Your task to perform on an android device: see tabs open on other devices in the chrome app Image 0: 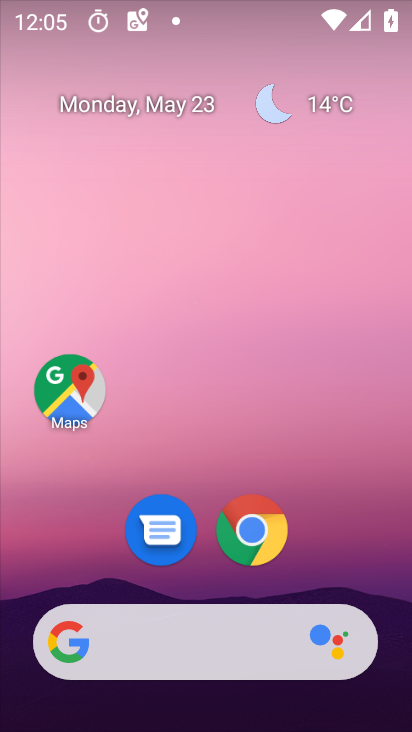
Step 0: click (260, 533)
Your task to perform on an android device: see tabs open on other devices in the chrome app Image 1: 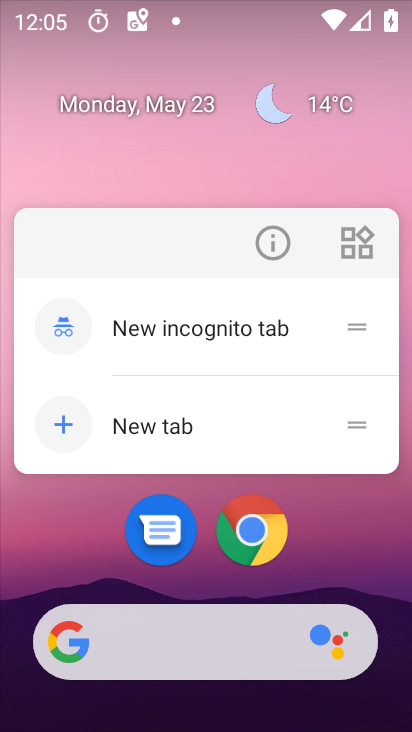
Step 1: click (258, 535)
Your task to perform on an android device: see tabs open on other devices in the chrome app Image 2: 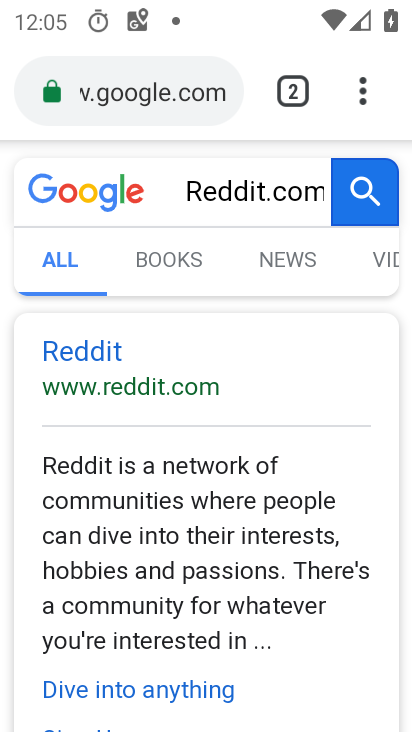
Step 2: click (359, 94)
Your task to perform on an android device: see tabs open on other devices in the chrome app Image 3: 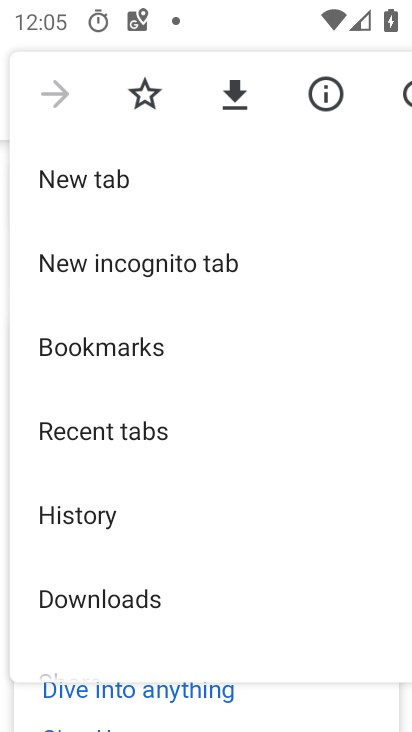
Step 3: click (84, 428)
Your task to perform on an android device: see tabs open on other devices in the chrome app Image 4: 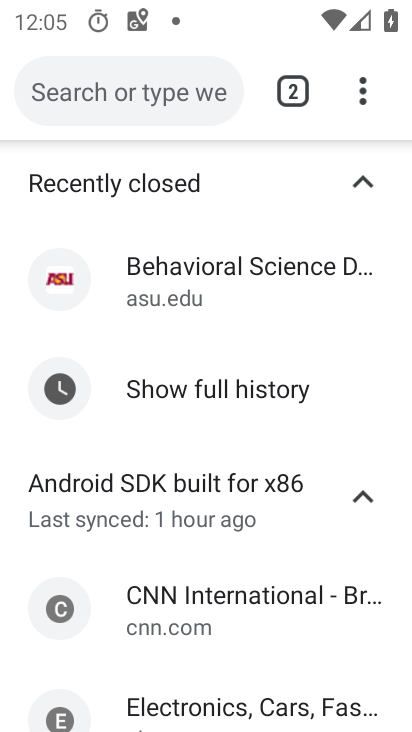
Step 4: task complete